Your task to perform on an android device: Open privacy settings Image 0: 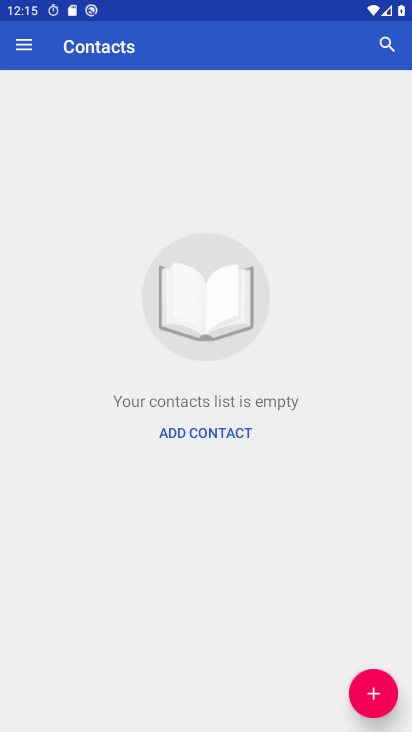
Step 0: press home button
Your task to perform on an android device: Open privacy settings Image 1: 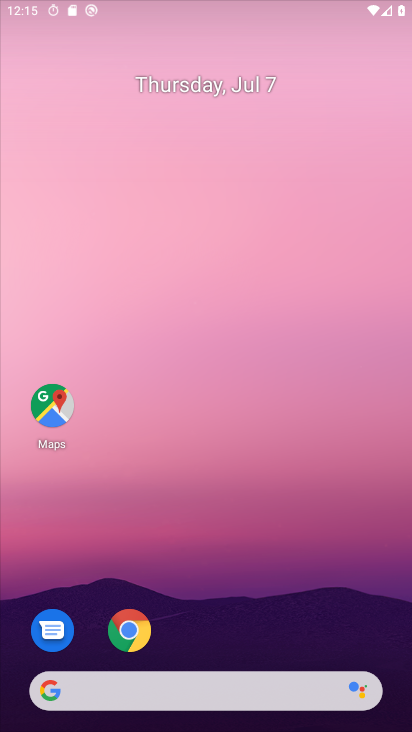
Step 1: drag from (281, 639) to (278, 9)
Your task to perform on an android device: Open privacy settings Image 2: 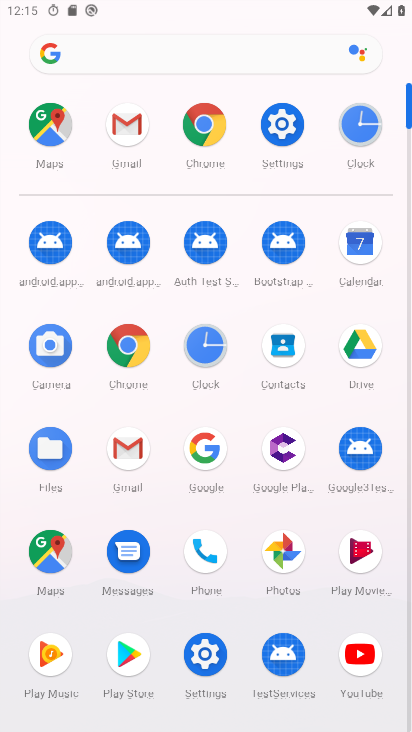
Step 2: click (289, 139)
Your task to perform on an android device: Open privacy settings Image 3: 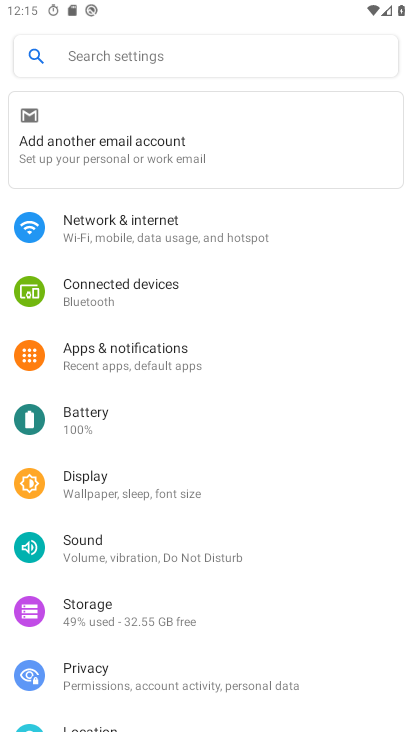
Step 3: click (104, 677)
Your task to perform on an android device: Open privacy settings Image 4: 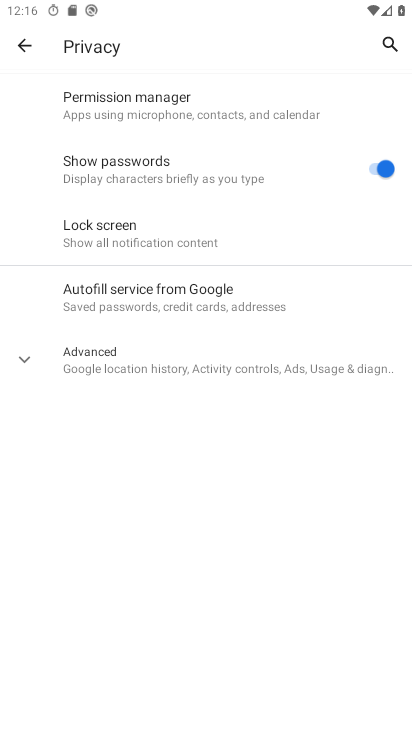
Step 4: task complete